Your task to perform on an android device: open wifi settings Image 0: 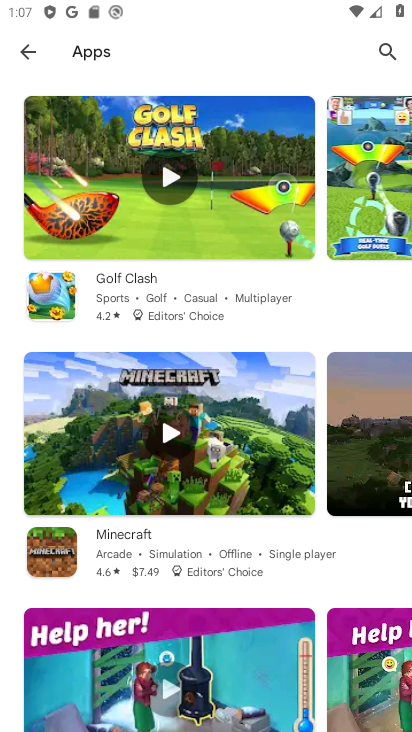
Step 0: press home button
Your task to perform on an android device: open wifi settings Image 1: 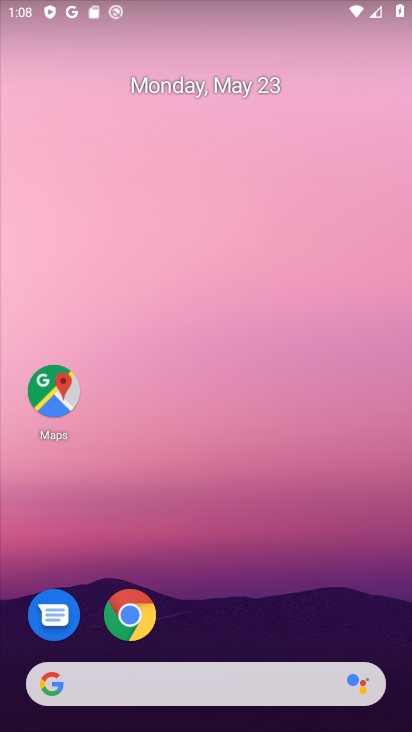
Step 1: drag from (192, 647) to (209, 5)
Your task to perform on an android device: open wifi settings Image 2: 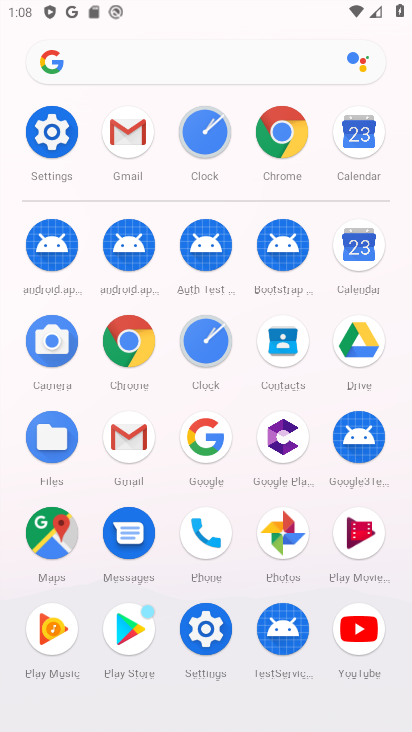
Step 2: click (45, 149)
Your task to perform on an android device: open wifi settings Image 3: 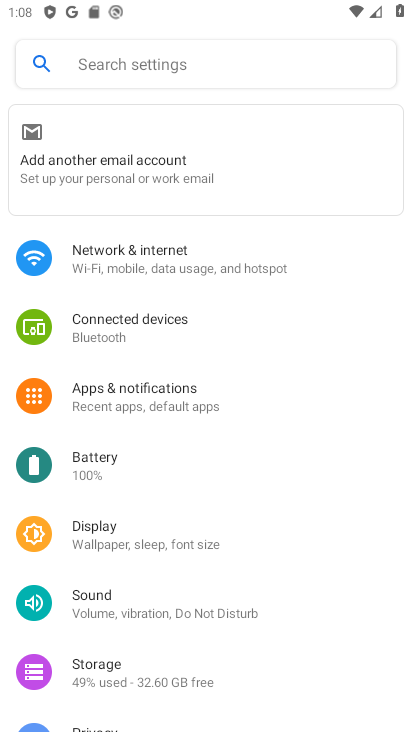
Step 3: click (119, 245)
Your task to perform on an android device: open wifi settings Image 4: 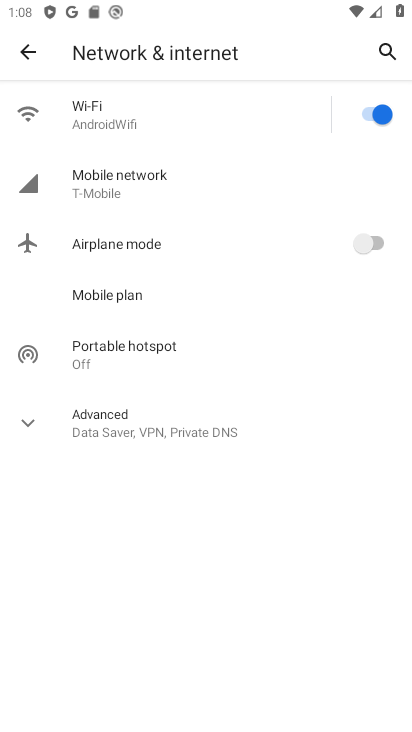
Step 4: click (194, 117)
Your task to perform on an android device: open wifi settings Image 5: 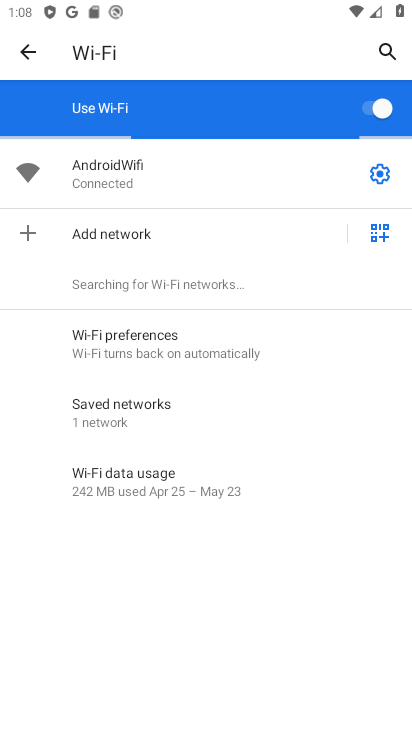
Step 5: task complete